Your task to perform on an android device: add a label to a message in the gmail app Image 0: 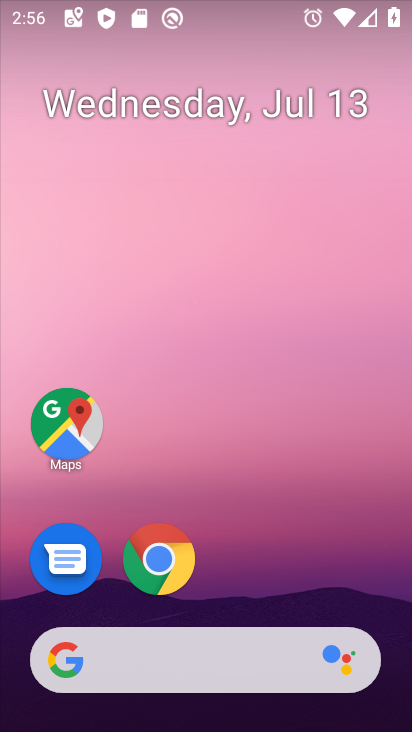
Step 0: drag from (283, 550) to (325, 98)
Your task to perform on an android device: add a label to a message in the gmail app Image 1: 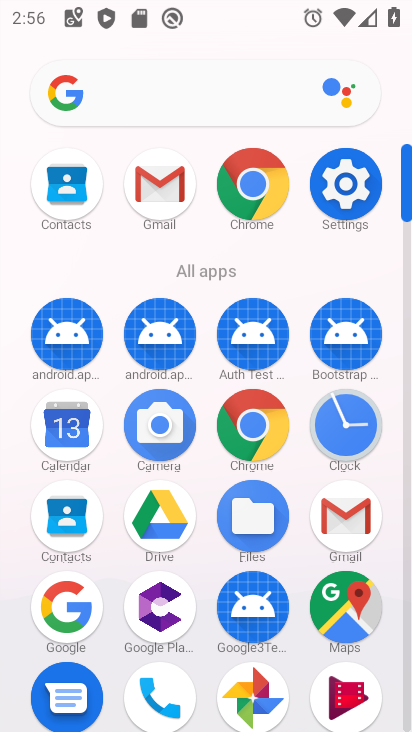
Step 1: click (346, 522)
Your task to perform on an android device: add a label to a message in the gmail app Image 2: 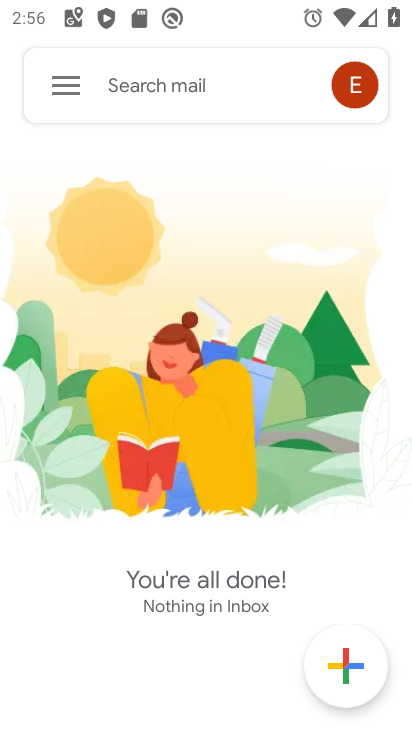
Step 2: task complete